Your task to perform on an android device: clear history in the chrome app Image 0: 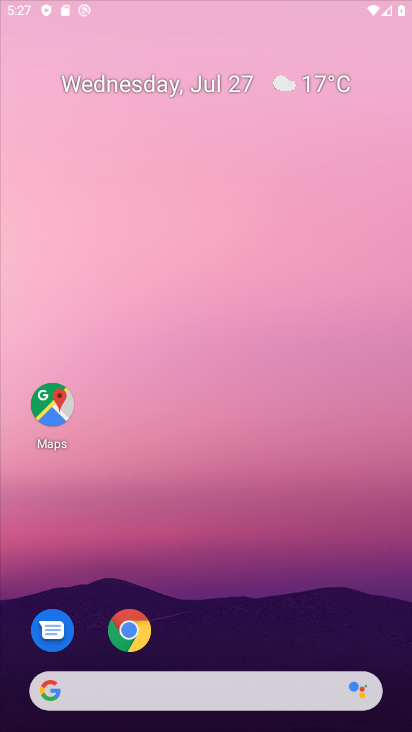
Step 0: press home button
Your task to perform on an android device: clear history in the chrome app Image 1: 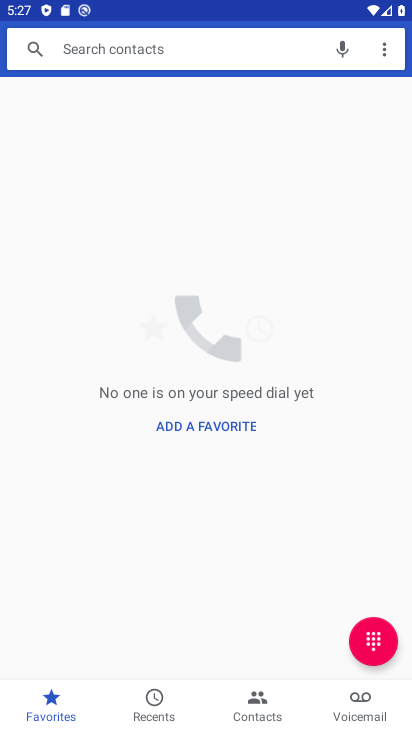
Step 1: click (203, 6)
Your task to perform on an android device: clear history in the chrome app Image 2: 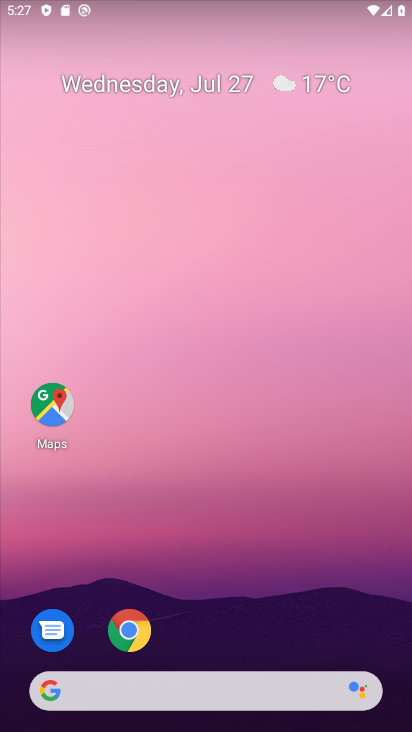
Step 2: drag from (223, 641) to (247, 13)
Your task to perform on an android device: clear history in the chrome app Image 3: 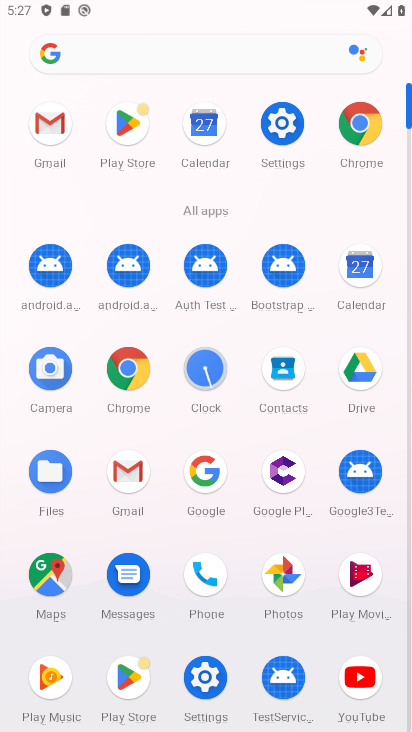
Step 3: click (286, 115)
Your task to perform on an android device: clear history in the chrome app Image 4: 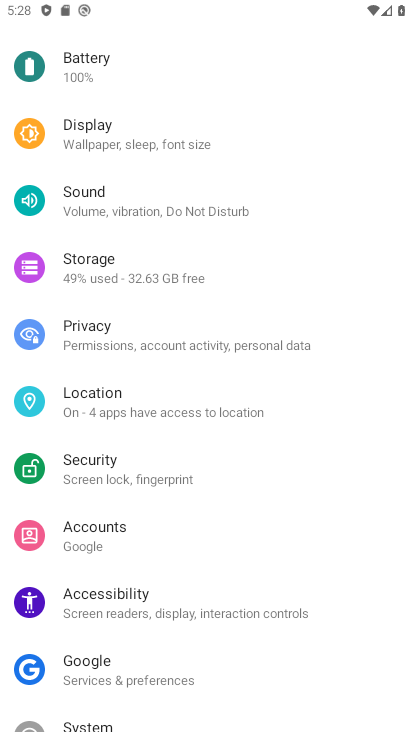
Step 4: press home button
Your task to perform on an android device: clear history in the chrome app Image 5: 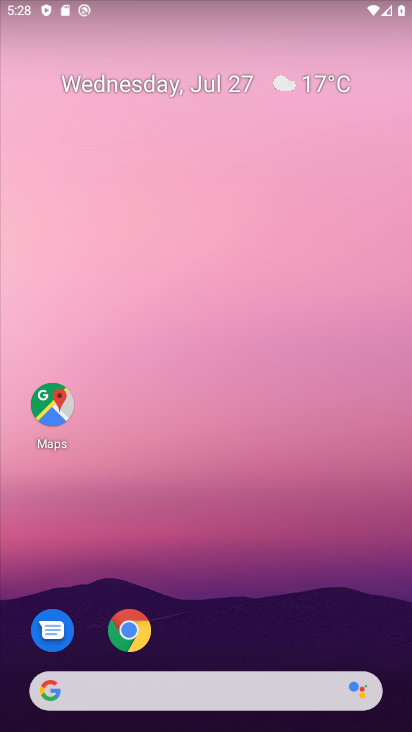
Step 5: click (124, 626)
Your task to perform on an android device: clear history in the chrome app Image 6: 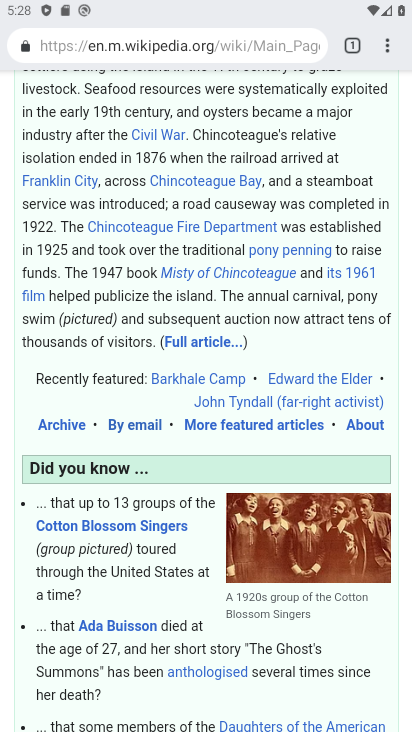
Step 6: click (377, 46)
Your task to perform on an android device: clear history in the chrome app Image 7: 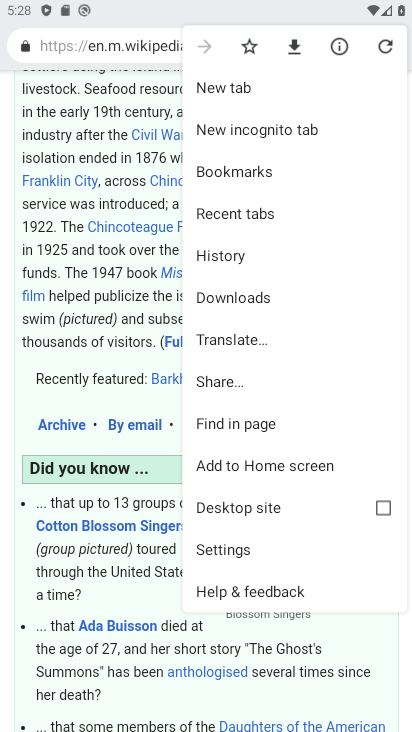
Step 7: click (256, 256)
Your task to perform on an android device: clear history in the chrome app Image 8: 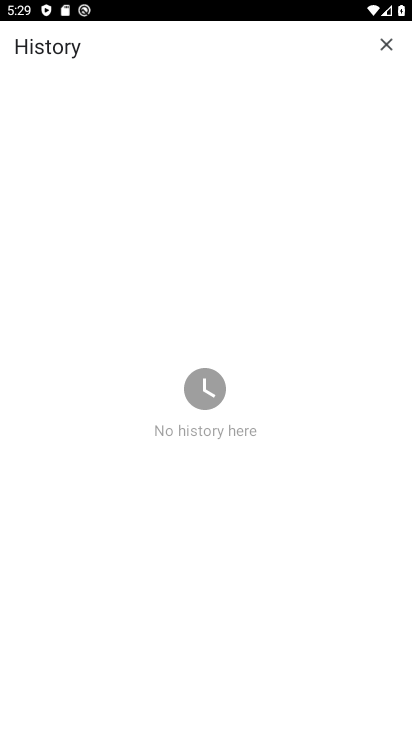
Step 8: task complete